Your task to perform on an android device: delete a single message in the gmail app Image 0: 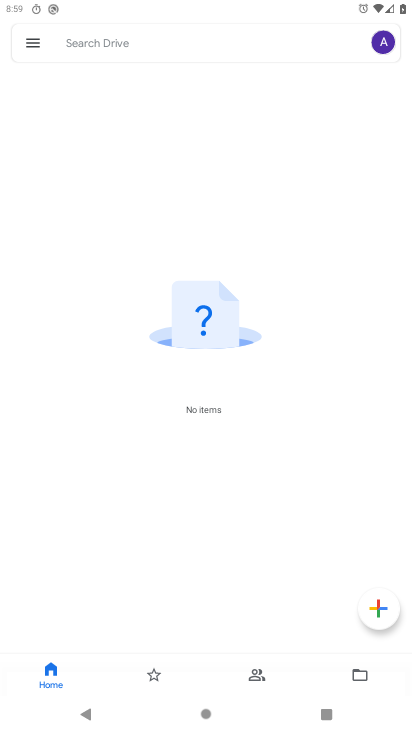
Step 0: press home button
Your task to perform on an android device: delete a single message in the gmail app Image 1: 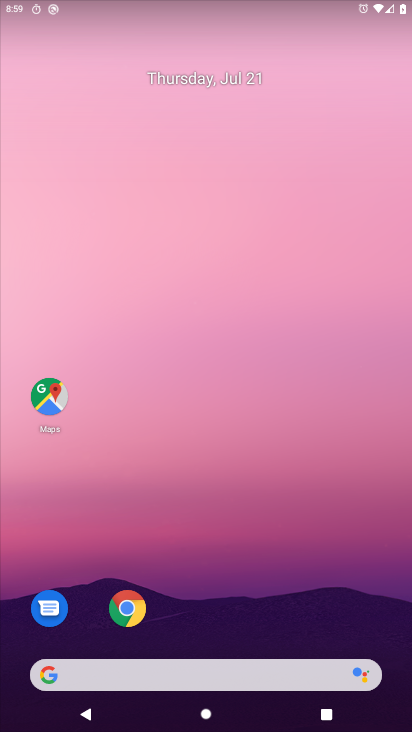
Step 1: drag from (54, 493) to (122, 128)
Your task to perform on an android device: delete a single message in the gmail app Image 2: 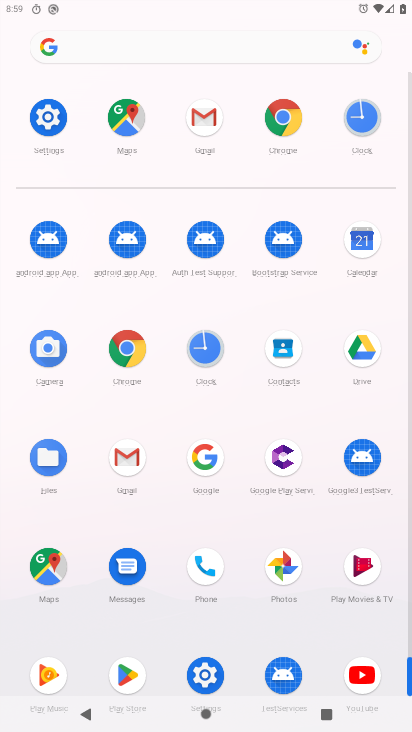
Step 2: click (128, 456)
Your task to perform on an android device: delete a single message in the gmail app Image 3: 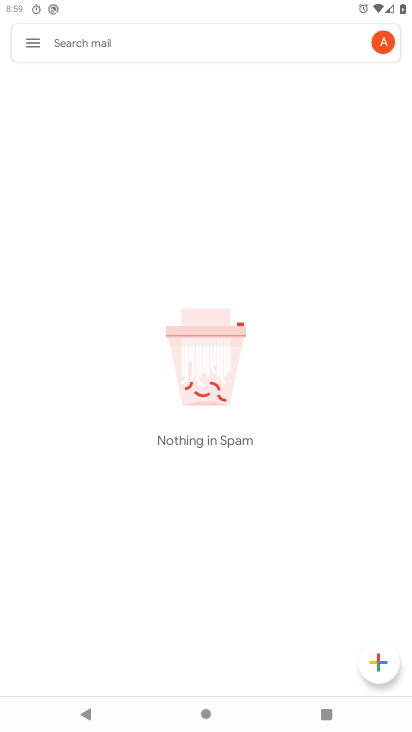
Step 3: click (26, 45)
Your task to perform on an android device: delete a single message in the gmail app Image 4: 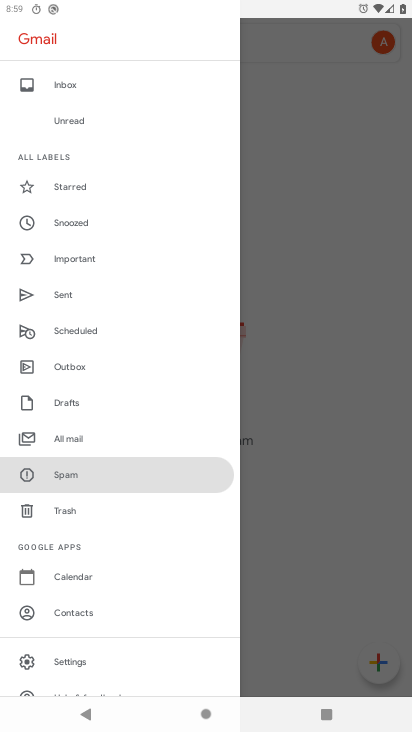
Step 4: click (81, 85)
Your task to perform on an android device: delete a single message in the gmail app Image 5: 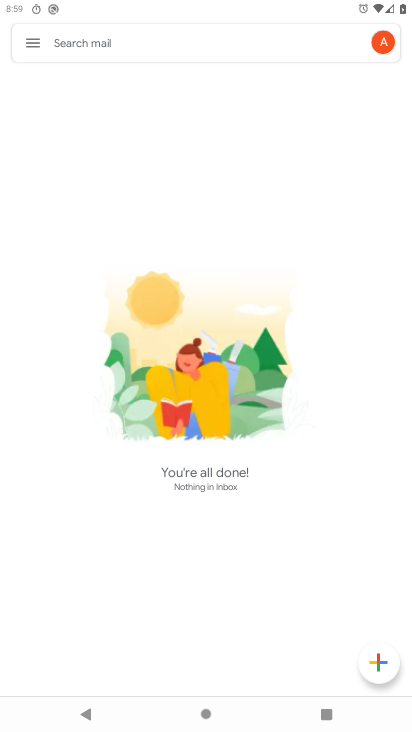
Step 5: task complete